Your task to perform on an android device: Open display settings Image 0: 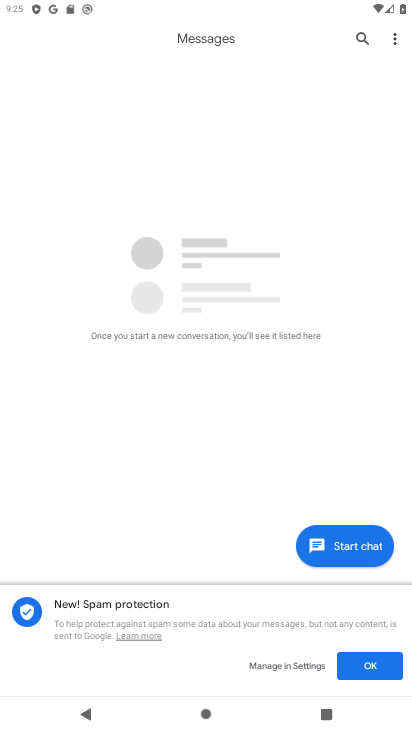
Step 0: press home button
Your task to perform on an android device: Open display settings Image 1: 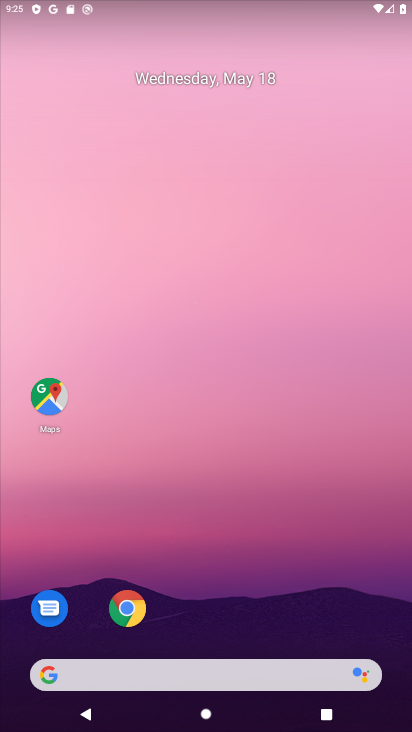
Step 1: drag from (318, 634) to (281, 102)
Your task to perform on an android device: Open display settings Image 2: 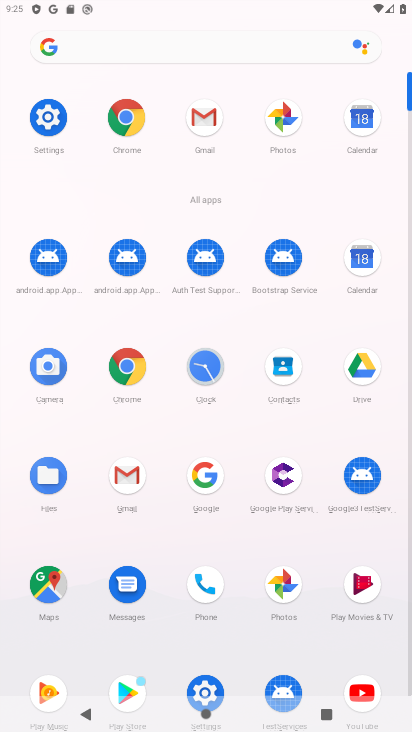
Step 2: click (46, 126)
Your task to perform on an android device: Open display settings Image 3: 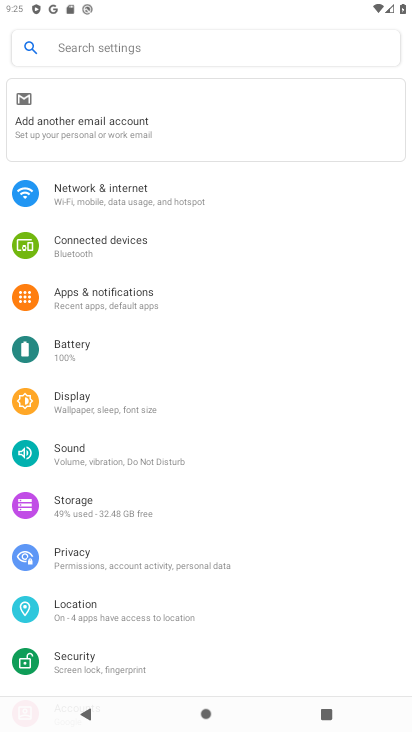
Step 3: click (113, 412)
Your task to perform on an android device: Open display settings Image 4: 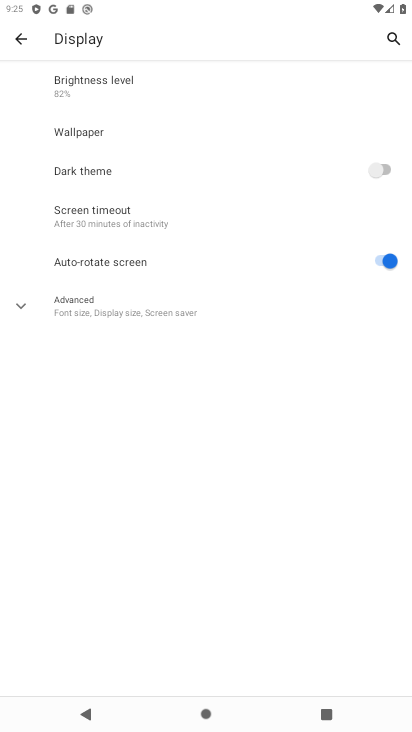
Step 4: task complete